Your task to perform on an android device: Go to Amazon Image 0: 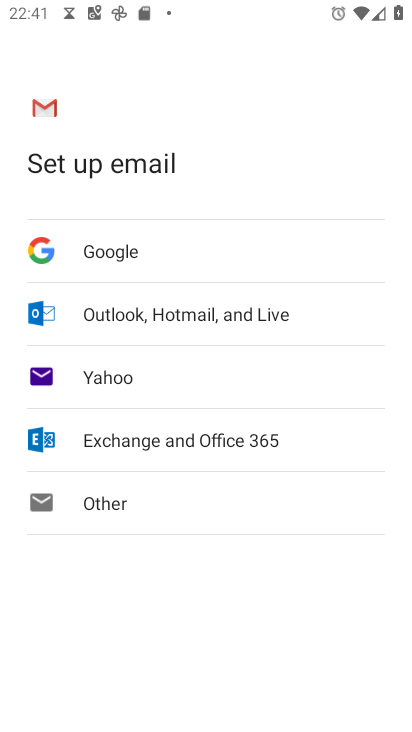
Step 0: press home button
Your task to perform on an android device: Go to Amazon Image 1: 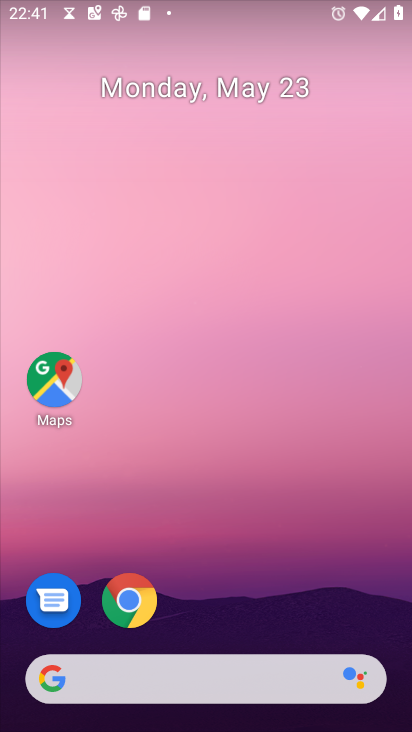
Step 1: click (132, 604)
Your task to perform on an android device: Go to Amazon Image 2: 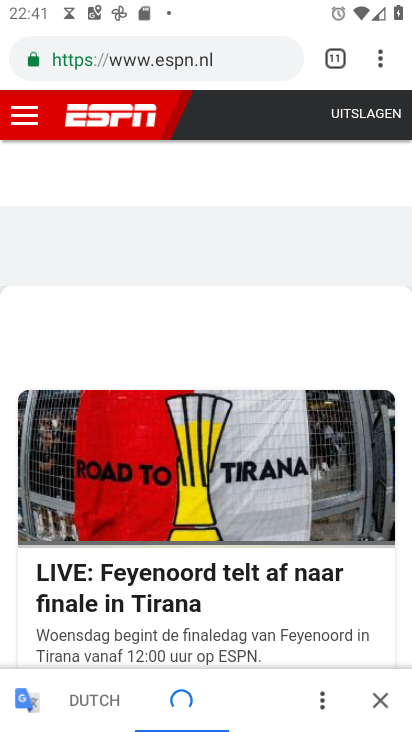
Step 2: click (382, 62)
Your task to perform on an android device: Go to Amazon Image 3: 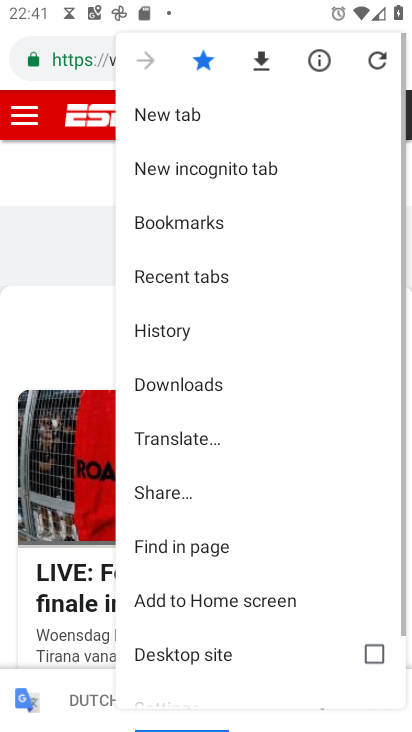
Step 3: click (169, 112)
Your task to perform on an android device: Go to Amazon Image 4: 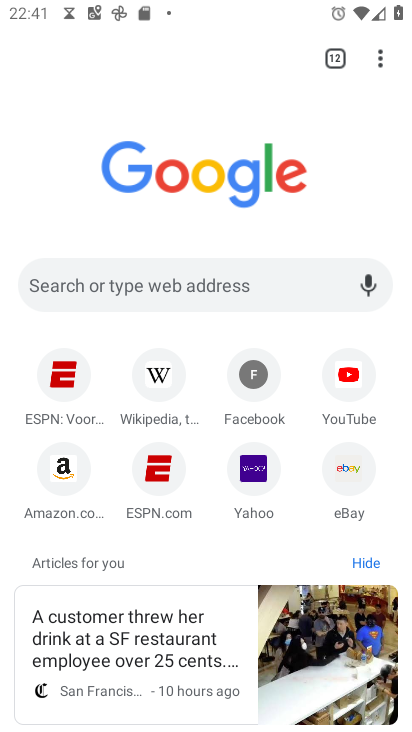
Step 4: click (60, 474)
Your task to perform on an android device: Go to Amazon Image 5: 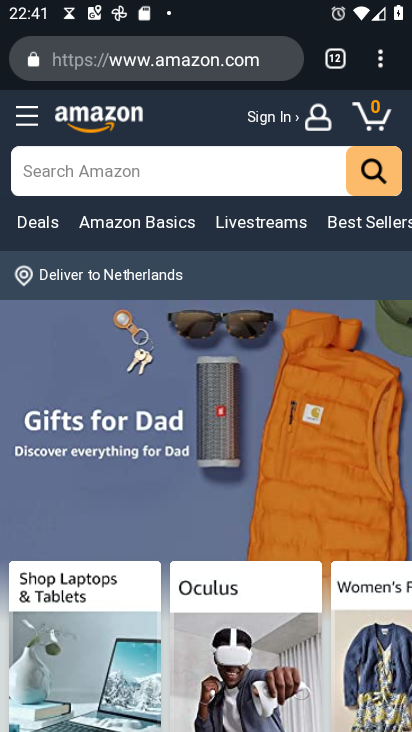
Step 5: task complete